Your task to perform on an android device: Search for seafood restaurants on Google Maps Image 0: 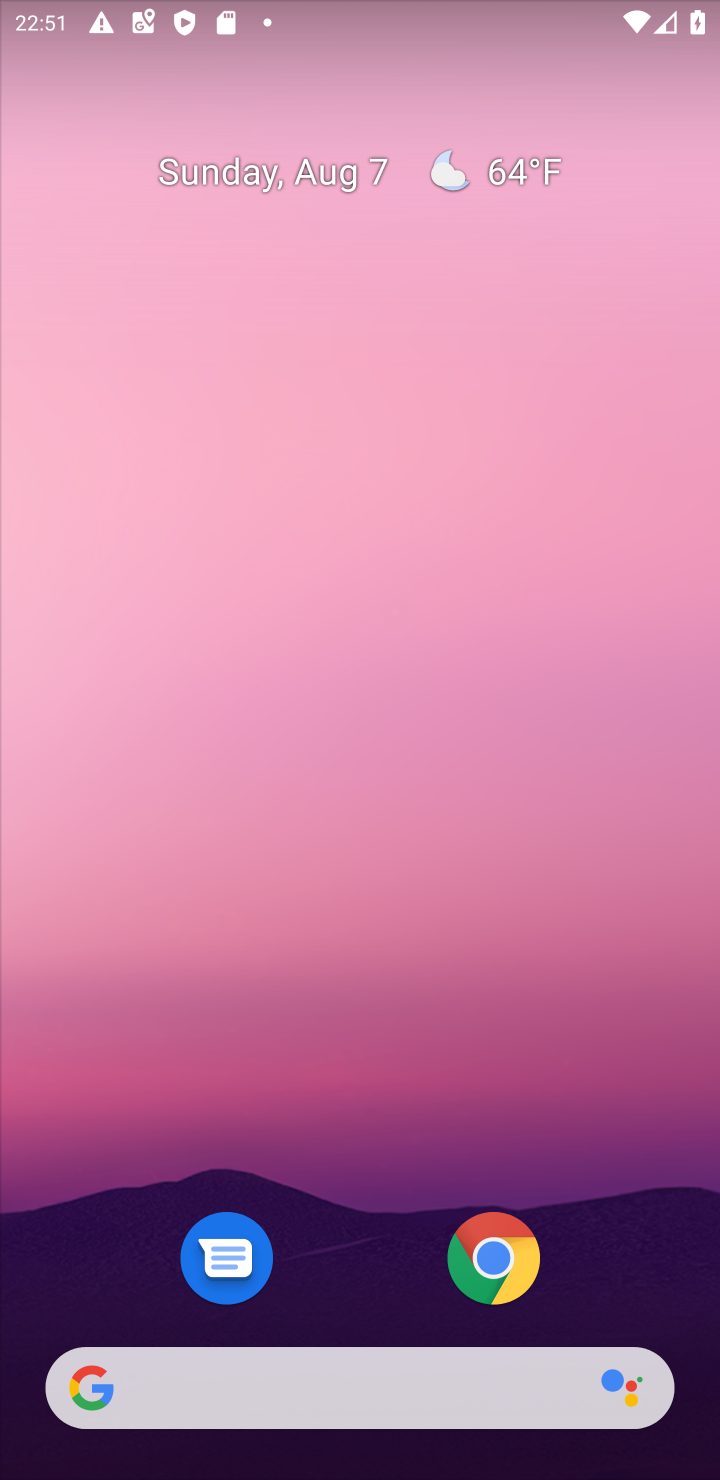
Step 0: press home button
Your task to perform on an android device: Search for seafood restaurants on Google Maps Image 1: 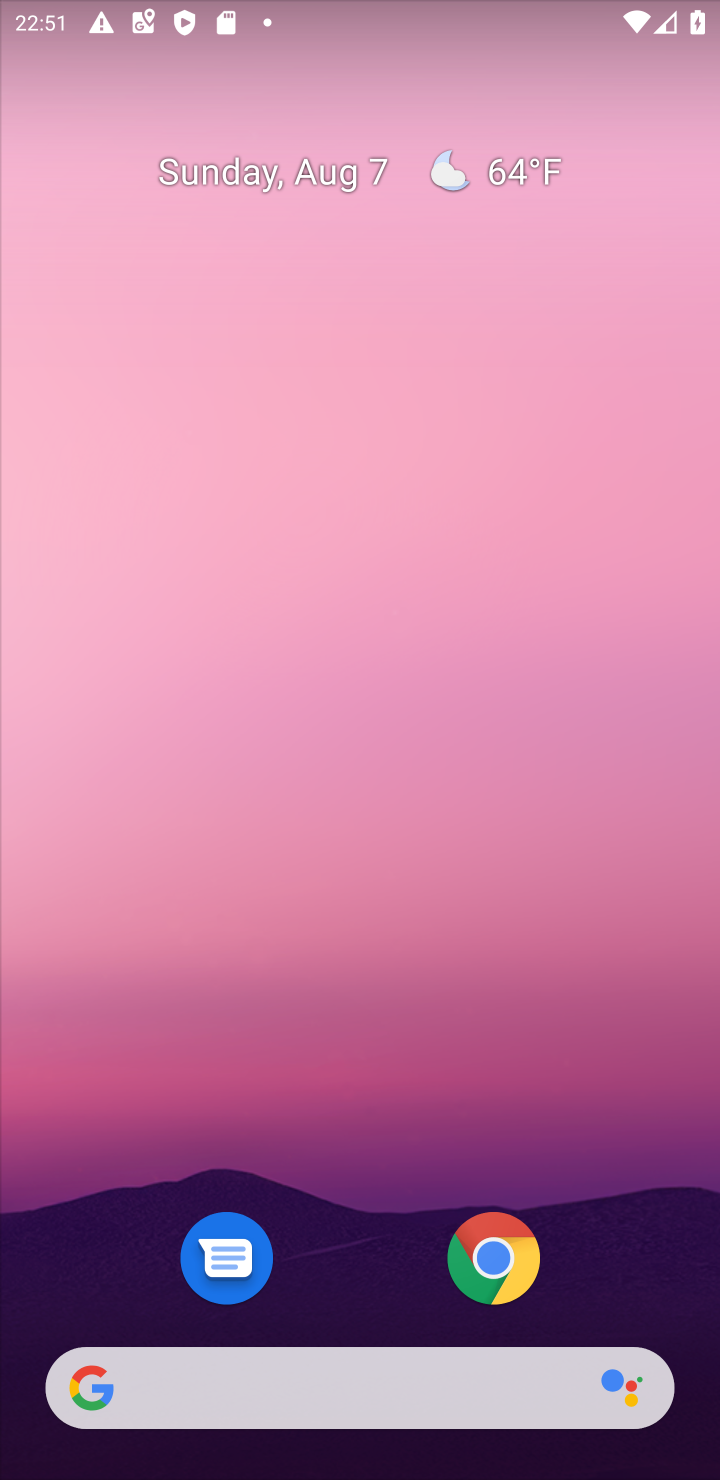
Step 1: press home button
Your task to perform on an android device: Search for seafood restaurants on Google Maps Image 2: 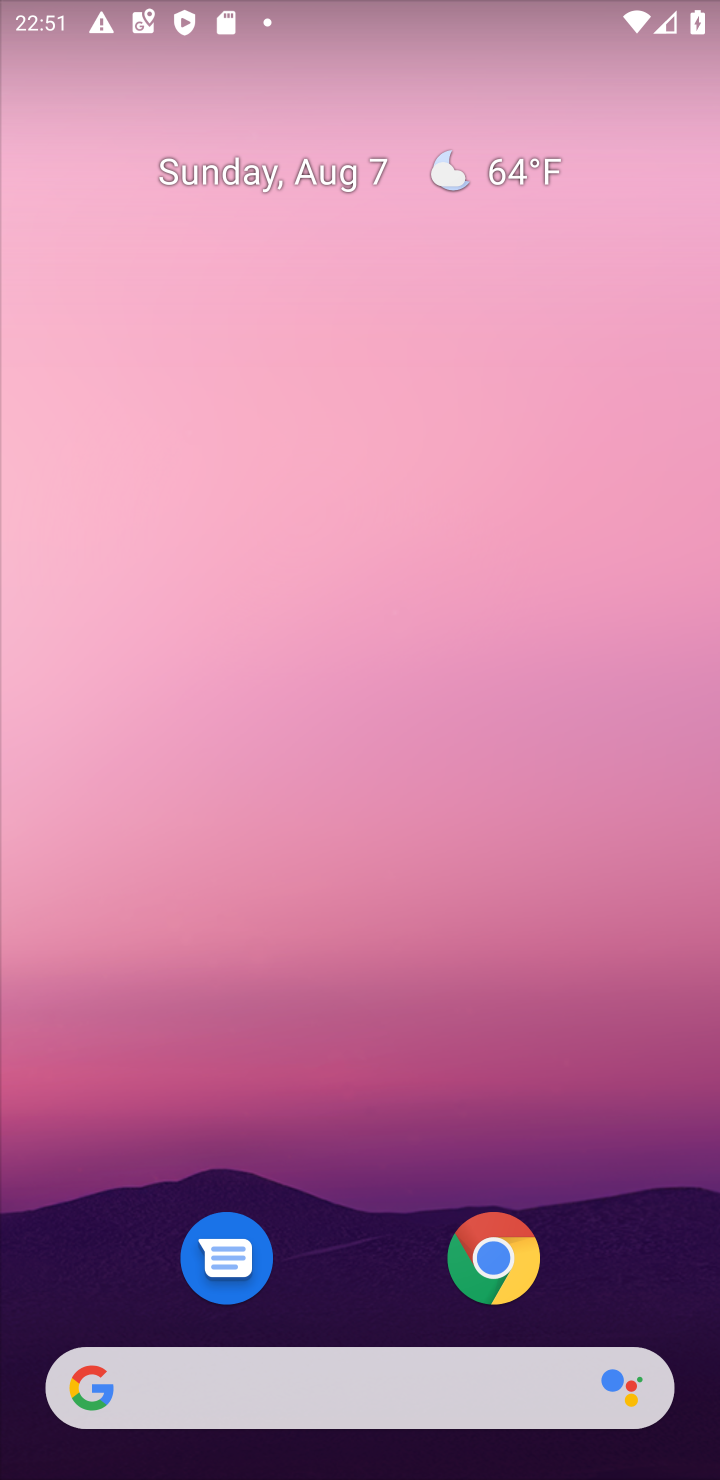
Step 2: click (345, 127)
Your task to perform on an android device: Search for seafood restaurants on Google Maps Image 3: 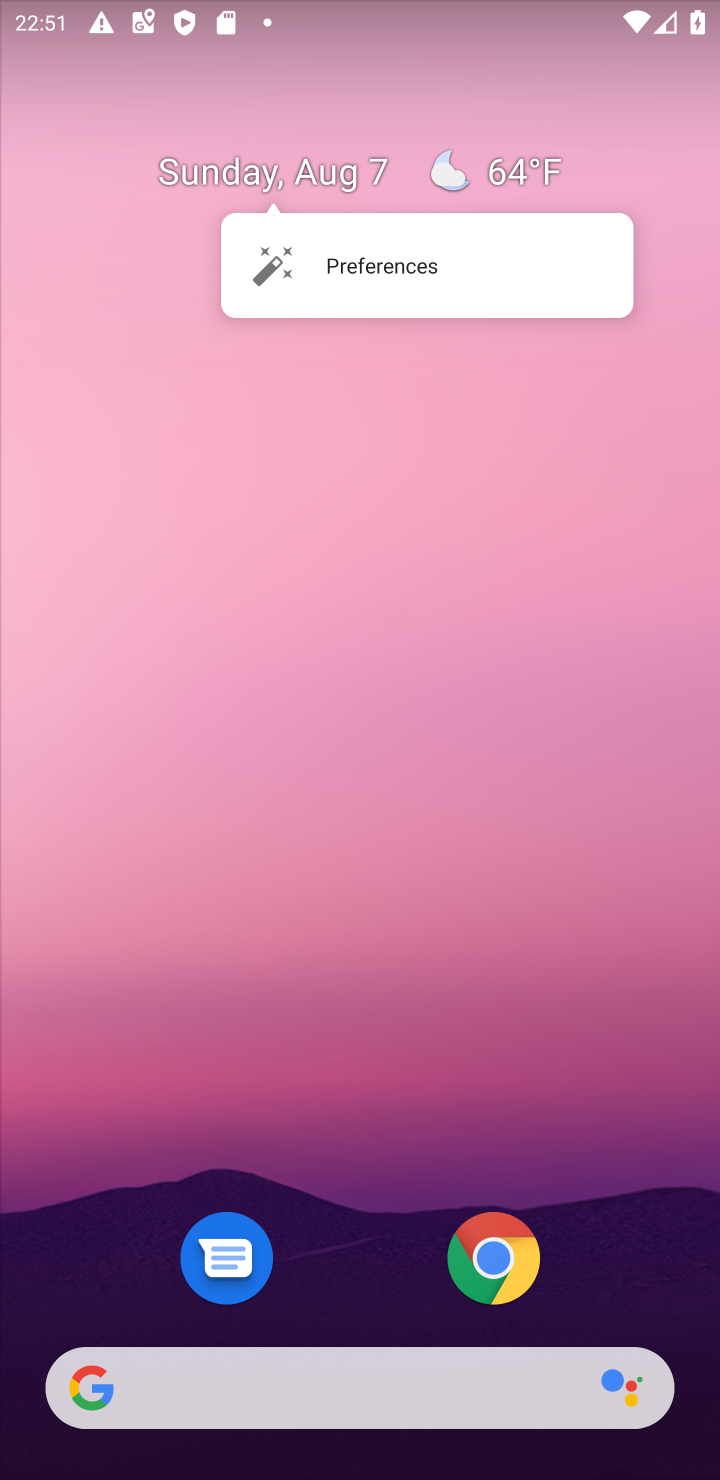
Step 3: drag from (248, 1065) to (265, 188)
Your task to perform on an android device: Search for seafood restaurants on Google Maps Image 4: 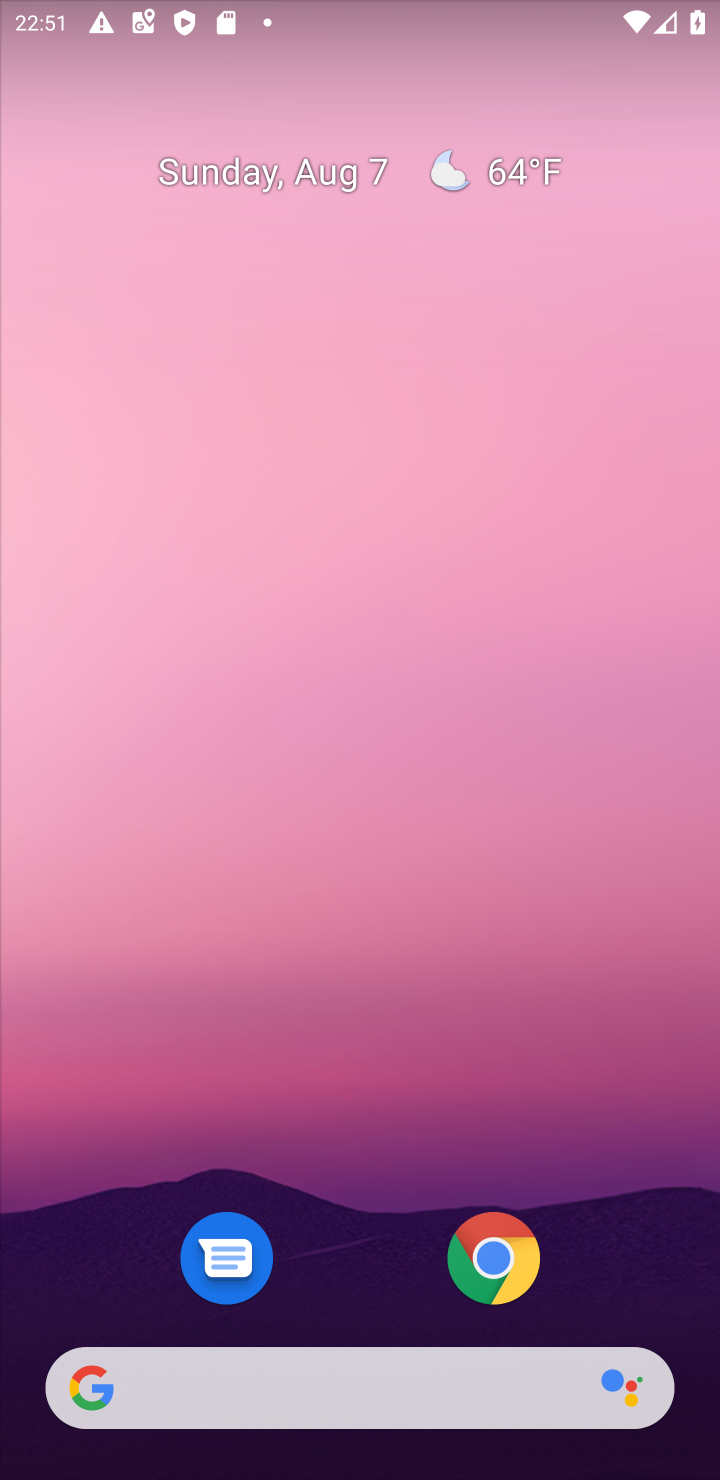
Step 4: drag from (356, 1267) to (409, 232)
Your task to perform on an android device: Search for seafood restaurants on Google Maps Image 5: 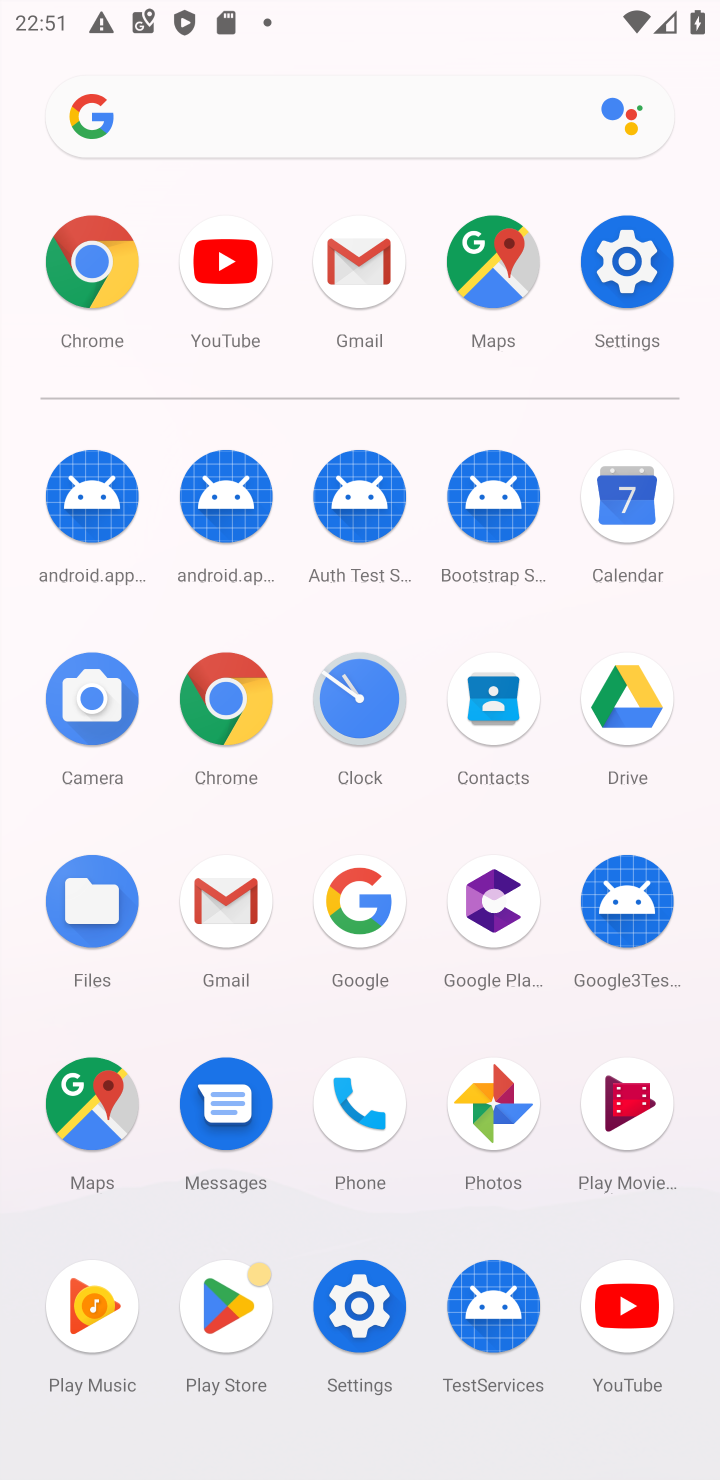
Step 5: click (510, 317)
Your task to perform on an android device: Search for seafood restaurants on Google Maps Image 6: 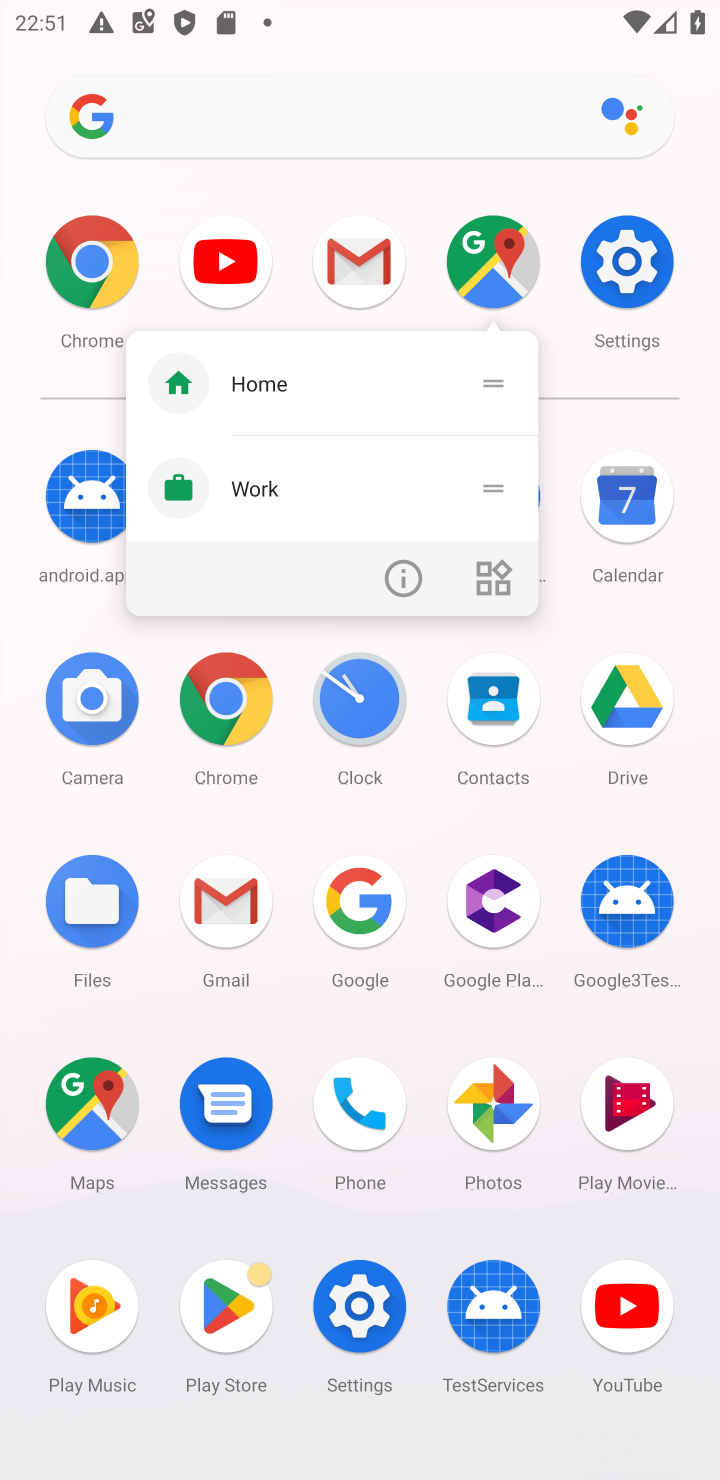
Step 6: click (501, 277)
Your task to perform on an android device: Search for seafood restaurants on Google Maps Image 7: 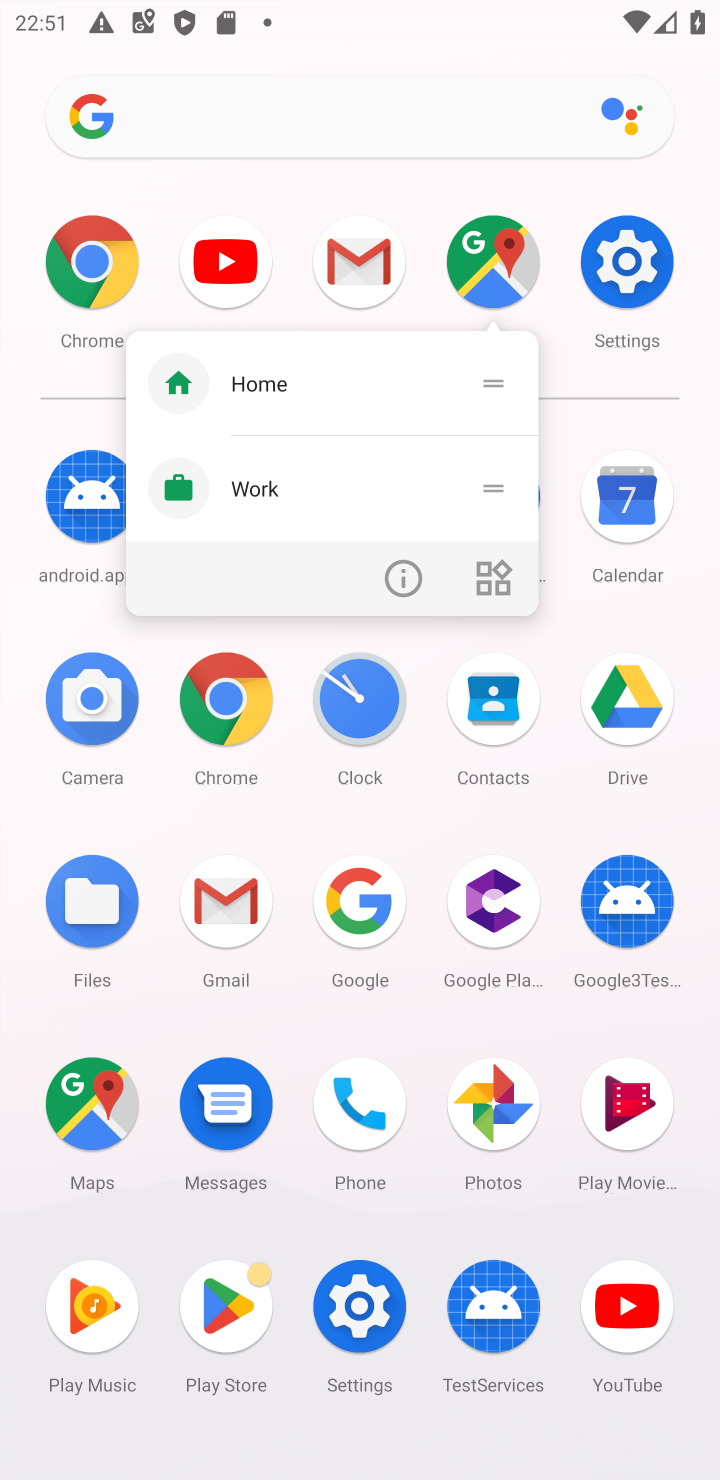
Step 7: click (501, 277)
Your task to perform on an android device: Search for seafood restaurants on Google Maps Image 8: 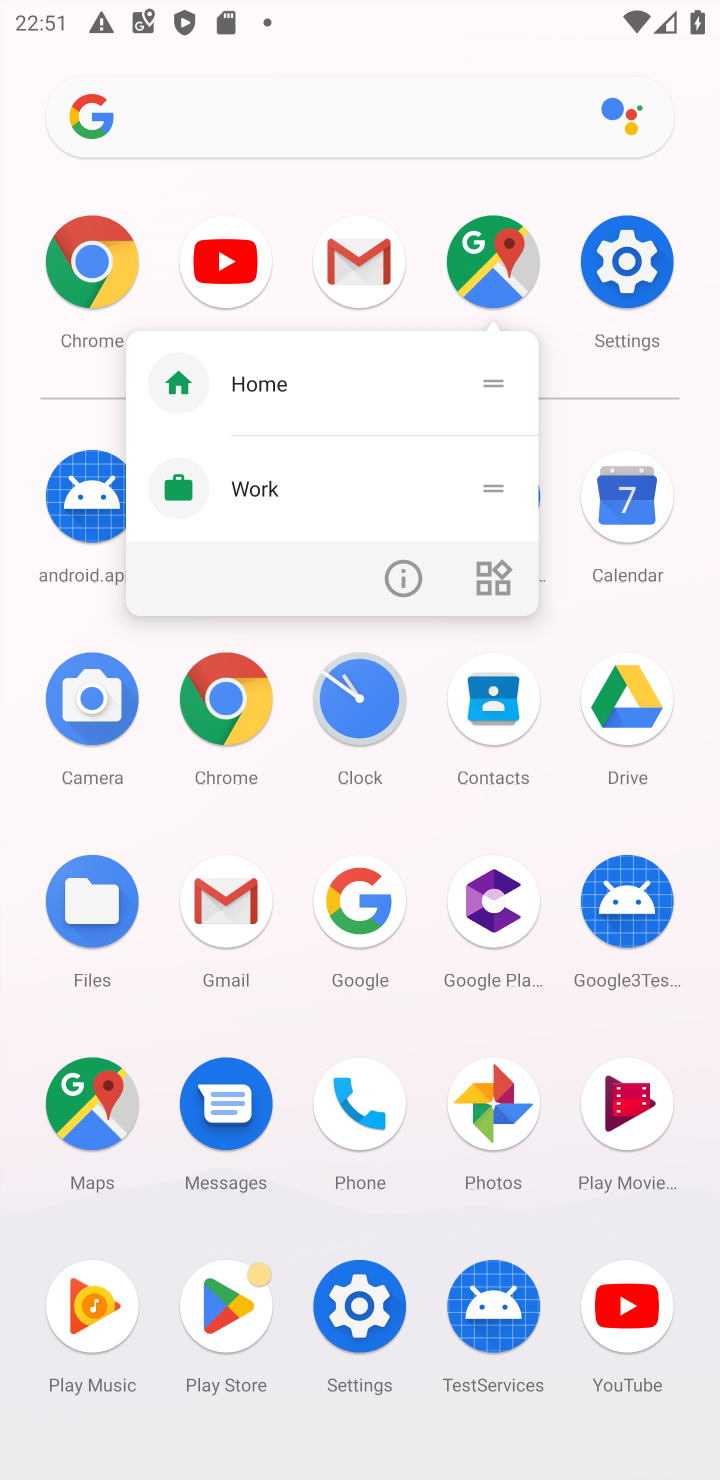
Step 8: click (501, 277)
Your task to perform on an android device: Search for seafood restaurants on Google Maps Image 9: 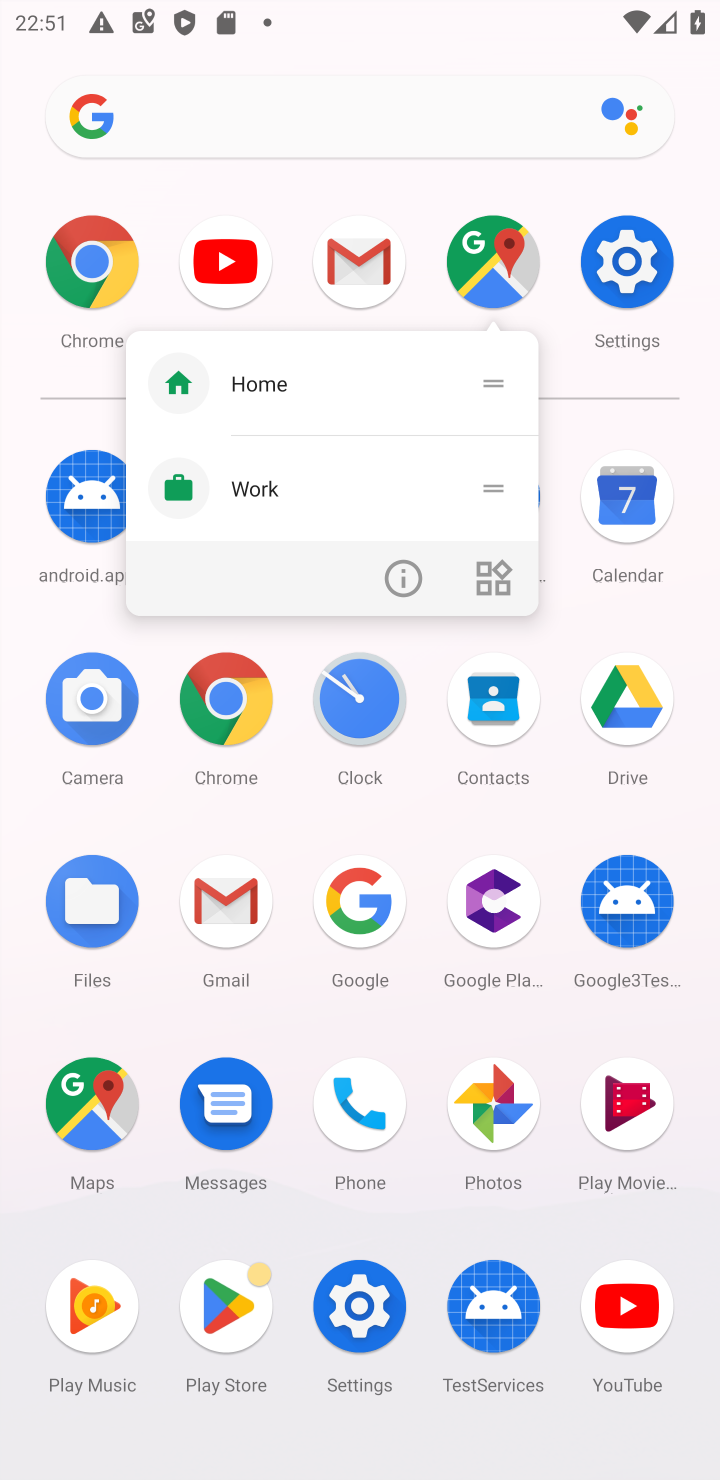
Step 9: click (501, 277)
Your task to perform on an android device: Search for seafood restaurants on Google Maps Image 10: 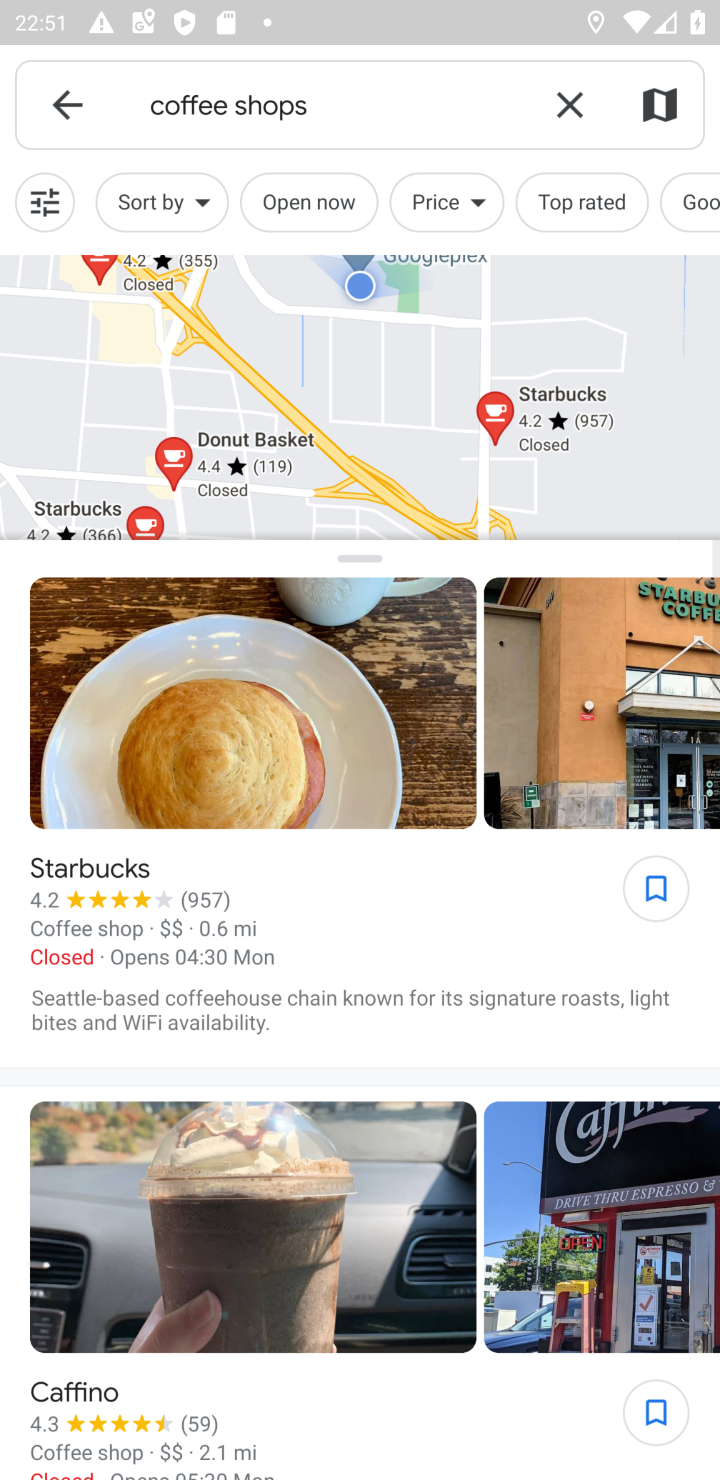
Step 10: click (569, 105)
Your task to perform on an android device: Search for seafood restaurants on Google Maps Image 11: 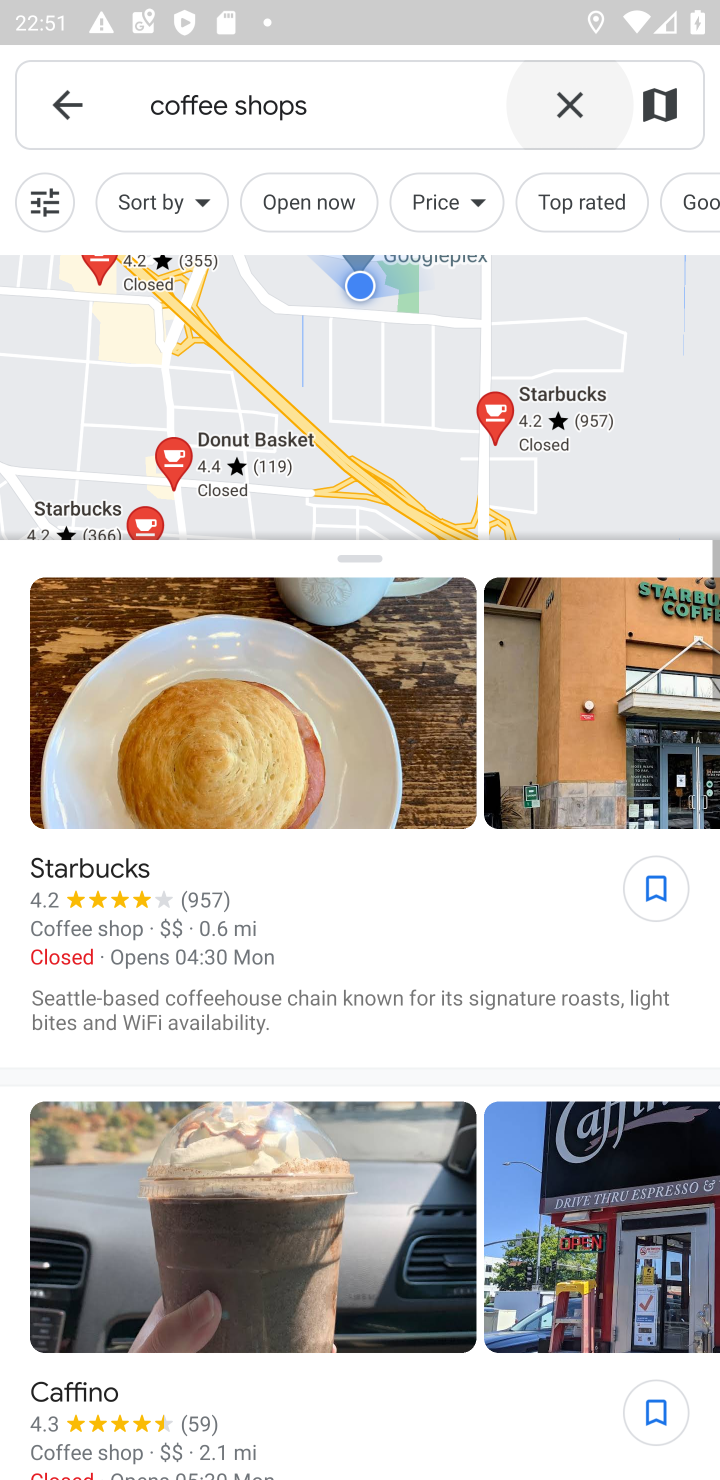
Step 11: click (446, 113)
Your task to perform on an android device: Search for seafood restaurants on Google Maps Image 12: 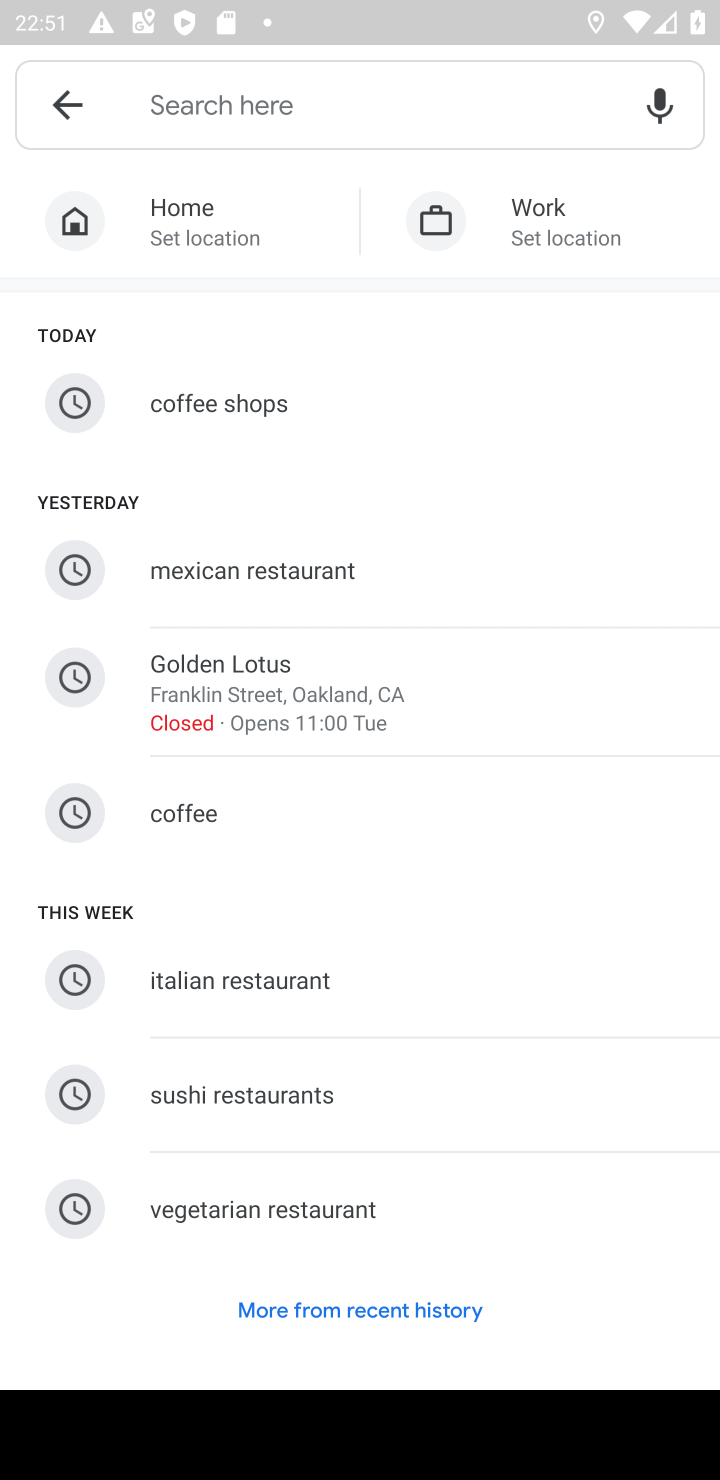
Step 12: type "seafood restaurants"
Your task to perform on an android device: Search for seafood restaurants on Google Maps Image 13: 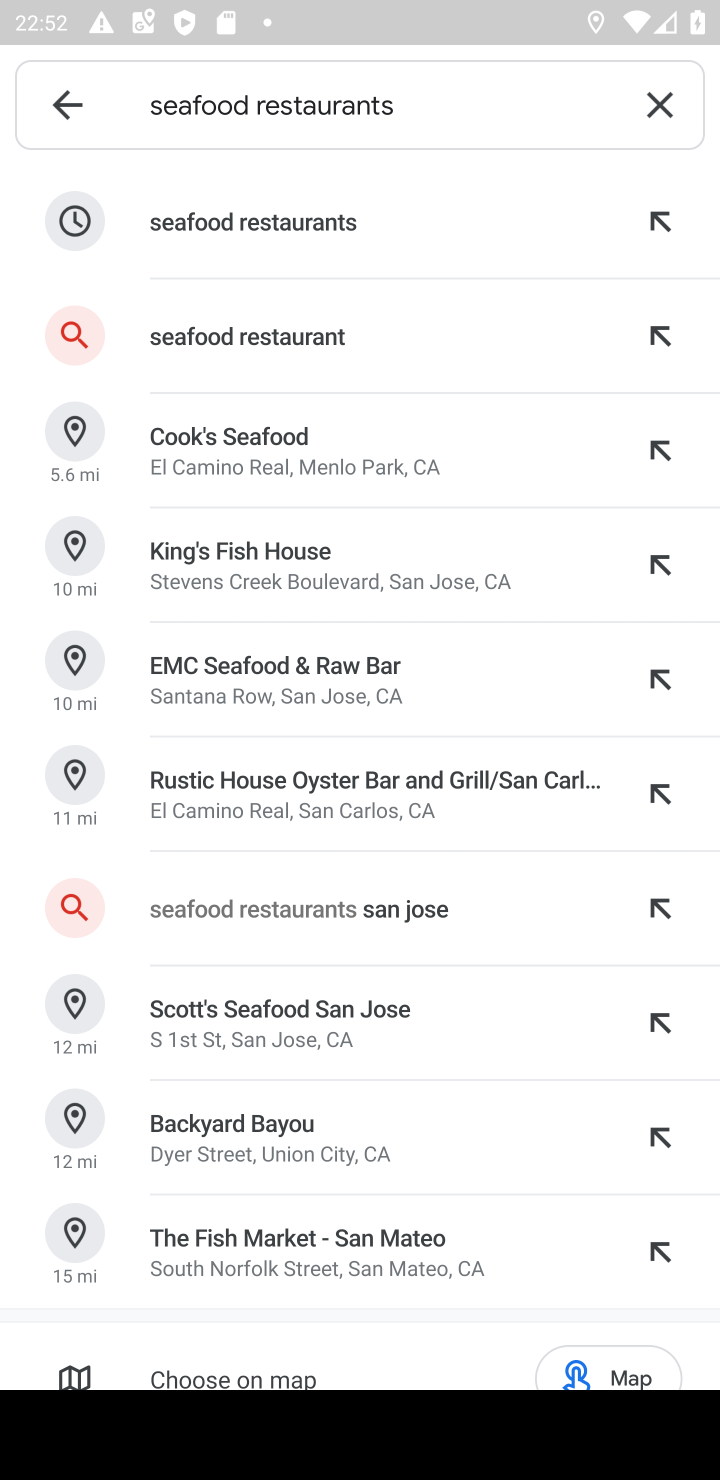
Step 13: click (364, 226)
Your task to perform on an android device: Search for seafood restaurants on Google Maps Image 14: 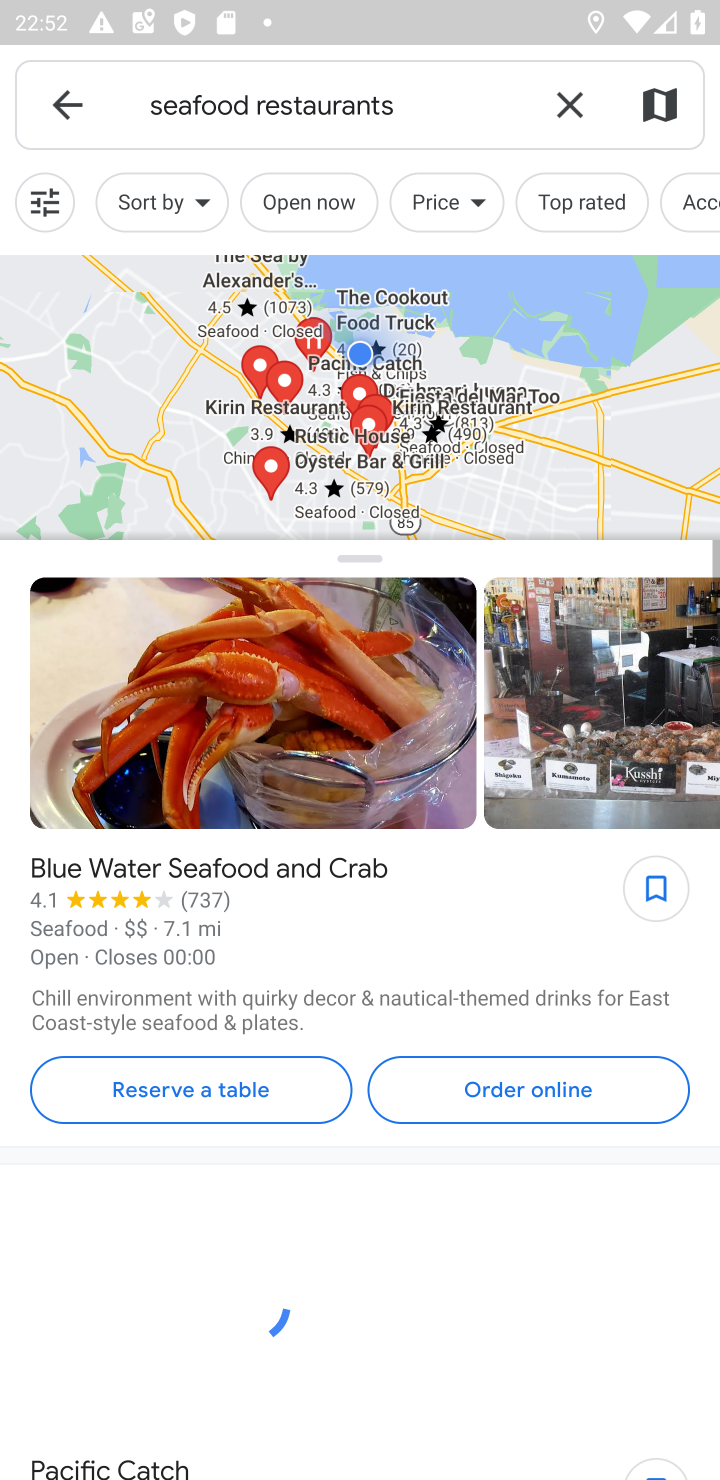
Step 14: task complete